Your task to perform on an android device: Open the map Image 0: 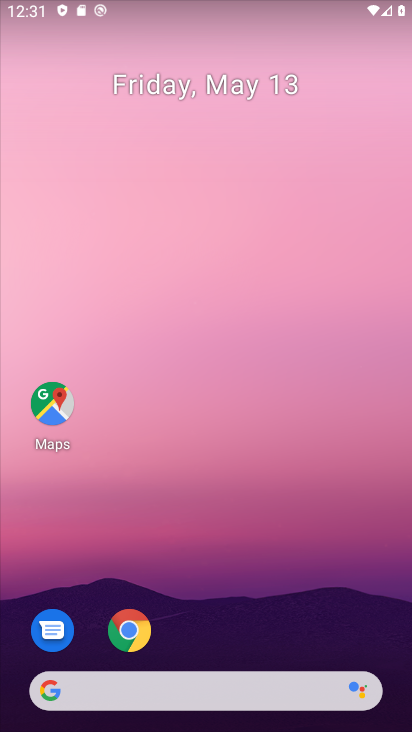
Step 0: drag from (261, 685) to (258, 295)
Your task to perform on an android device: Open the map Image 1: 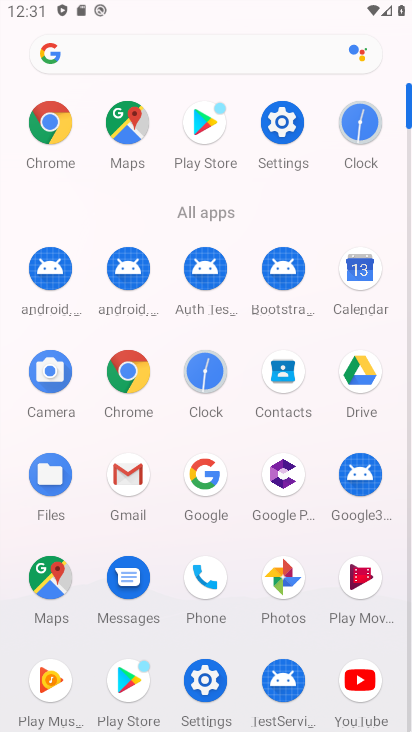
Step 1: click (52, 579)
Your task to perform on an android device: Open the map Image 2: 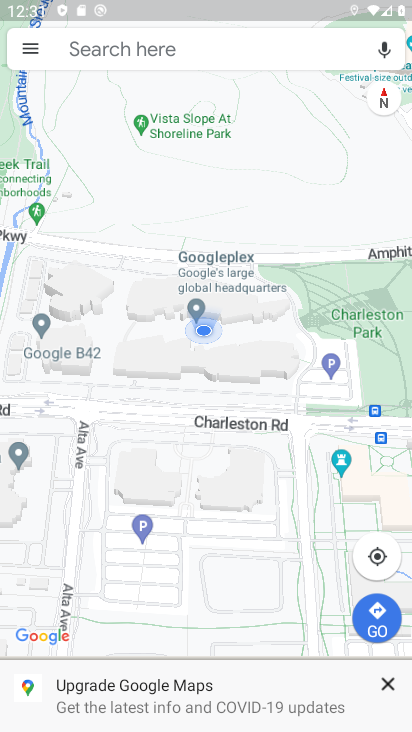
Step 2: click (170, 378)
Your task to perform on an android device: Open the map Image 3: 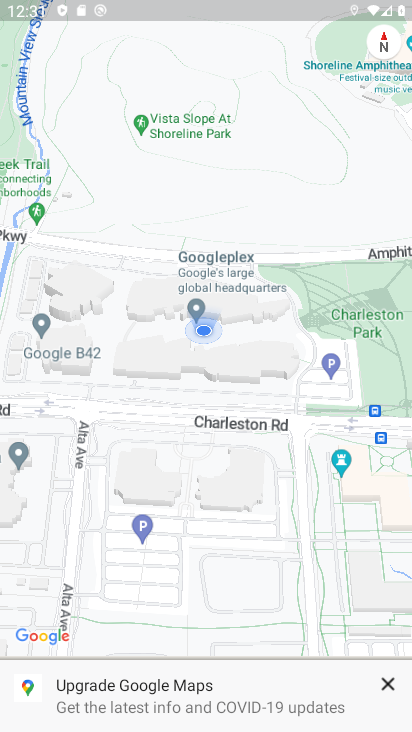
Step 3: click (385, 551)
Your task to perform on an android device: Open the map Image 4: 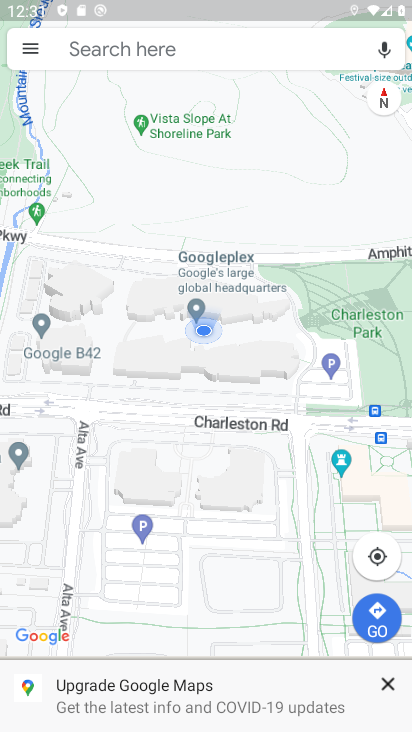
Step 4: click (391, 679)
Your task to perform on an android device: Open the map Image 5: 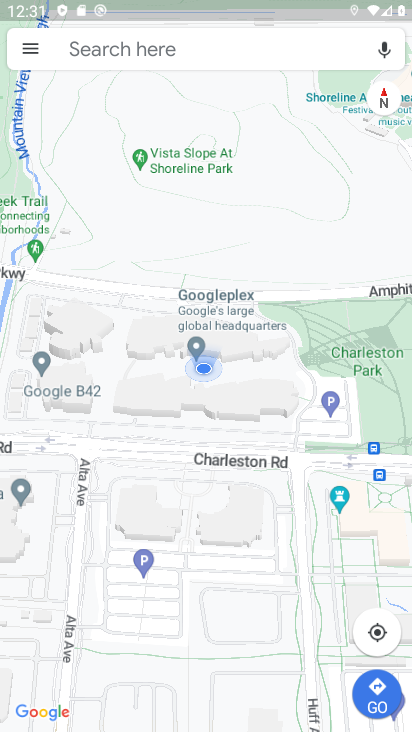
Step 5: task complete